Your task to perform on an android device: check android version Image 0: 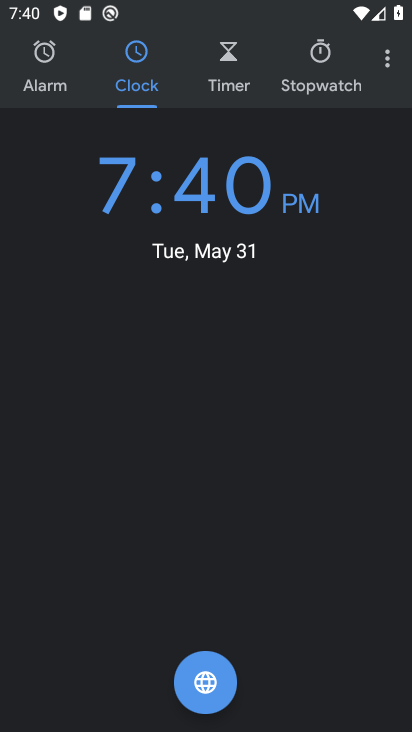
Step 0: press home button
Your task to perform on an android device: check android version Image 1: 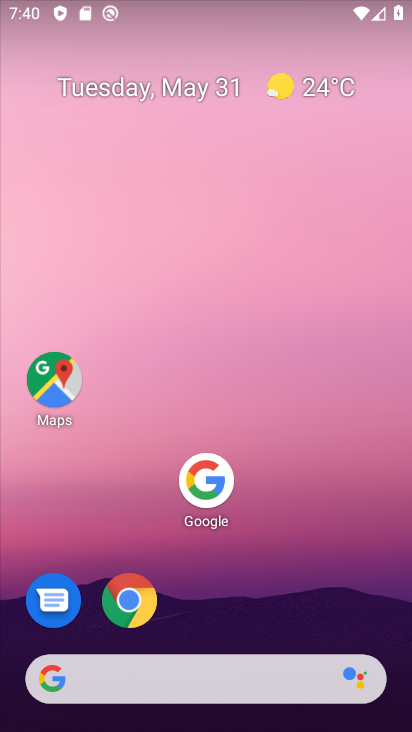
Step 1: drag from (168, 663) to (320, 48)
Your task to perform on an android device: check android version Image 2: 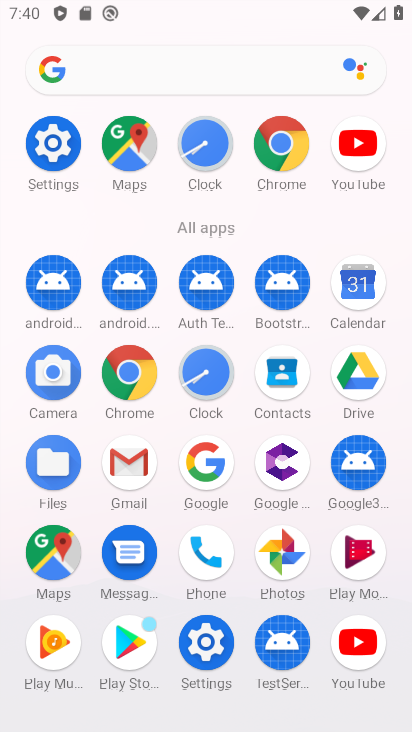
Step 2: click (58, 137)
Your task to perform on an android device: check android version Image 3: 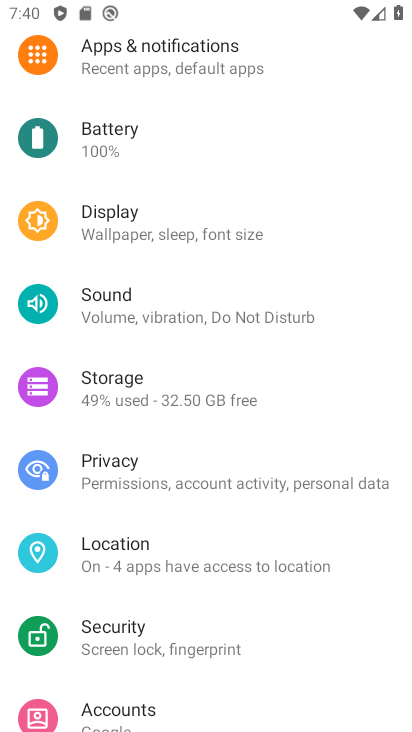
Step 3: drag from (291, 660) to (376, 200)
Your task to perform on an android device: check android version Image 4: 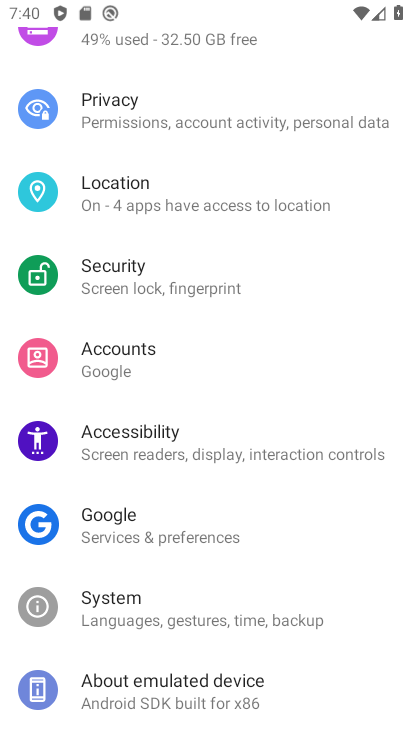
Step 4: click (141, 695)
Your task to perform on an android device: check android version Image 5: 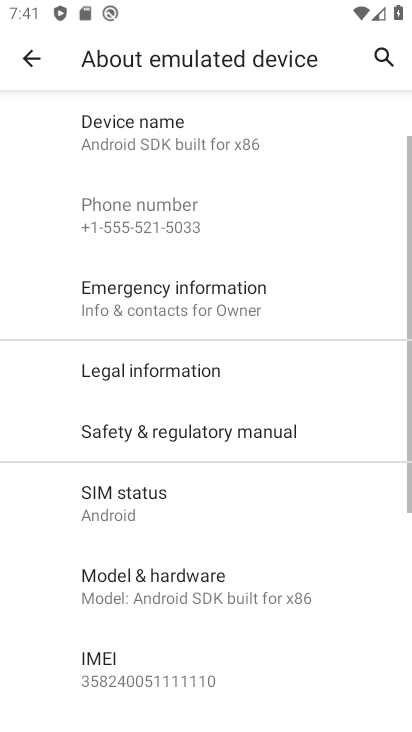
Step 5: drag from (213, 543) to (346, 105)
Your task to perform on an android device: check android version Image 6: 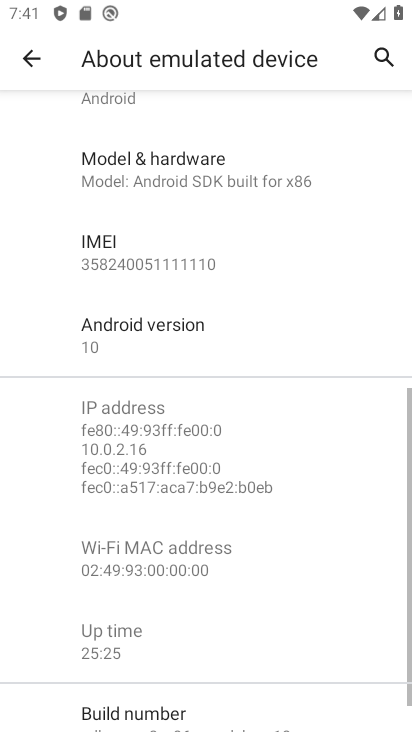
Step 6: click (132, 321)
Your task to perform on an android device: check android version Image 7: 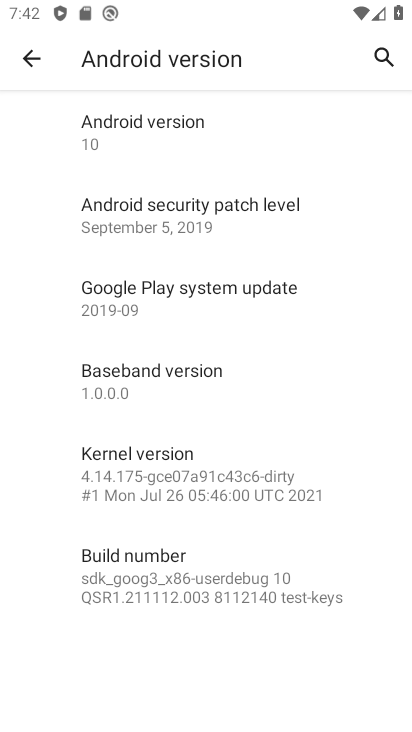
Step 7: task complete